Your task to perform on an android device: turn on javascript in the chrome app Image 0: 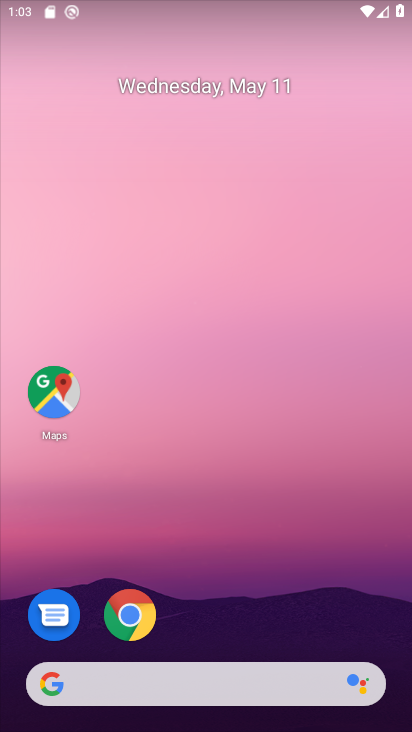
Step 0: drag from (359, 606) to (323, 215)
Your task to perform on an android device: turn on javascript in the chrome app Image 1: 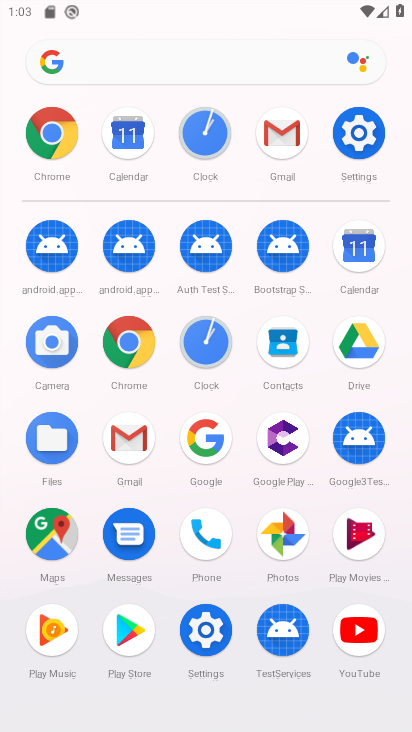
Step 1: click (129, 350)
Your task to perform on an android device: turn on javascript in the chrome app Image 2: 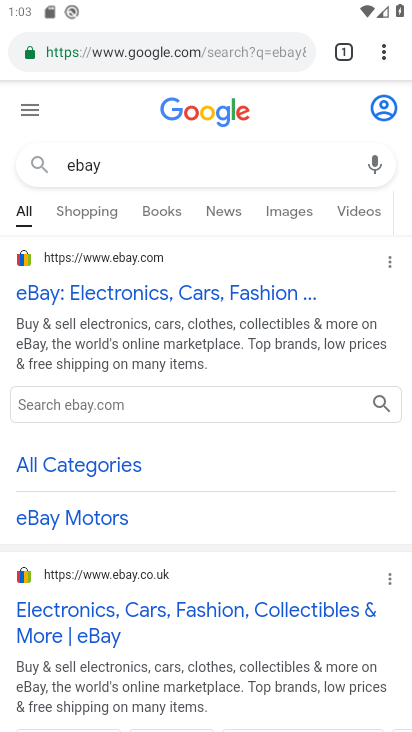
Step 2: drag from (384, 60) to (230, 597)
Your task to perform on an android device: turn on javascript in the chrome app Image 3: 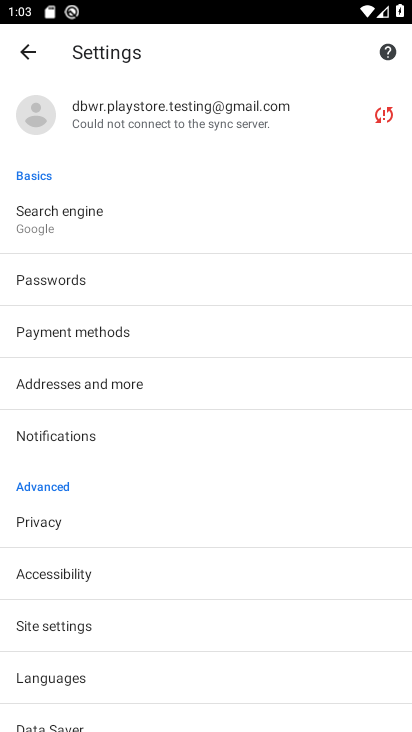
Step 3: drag from (230, 650) to (266, 297)
Your task to perform on an android device: turn on javascript in the chrome app Image 4: 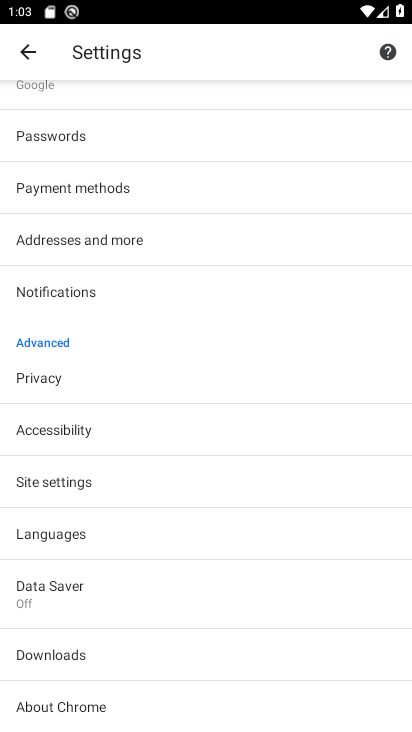
Step 4: click (140, 498)
Your task to perform on an android device: turn on javascript in the chrome app Image 5: 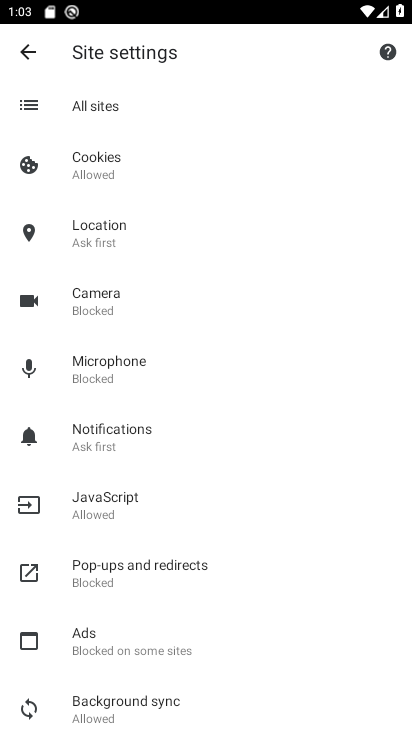
Step 5: click (141, 497)
Your task to perform on an android device: turn on javascript in the chrome app Image 6: 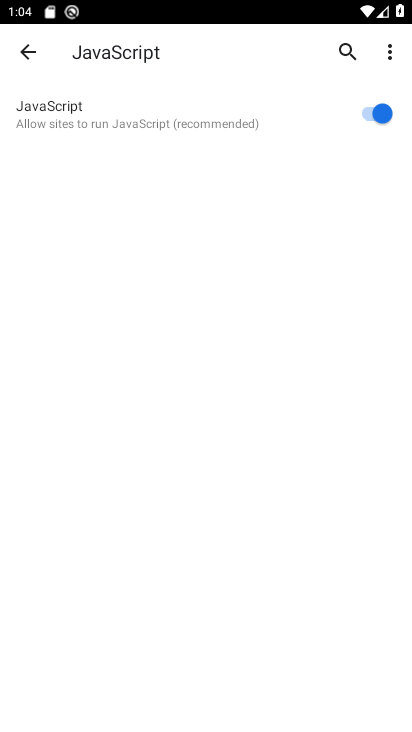
Step 6: click (194, 175)
Your task to perform on an android device: turn on javascript in the chrome app Image 7: 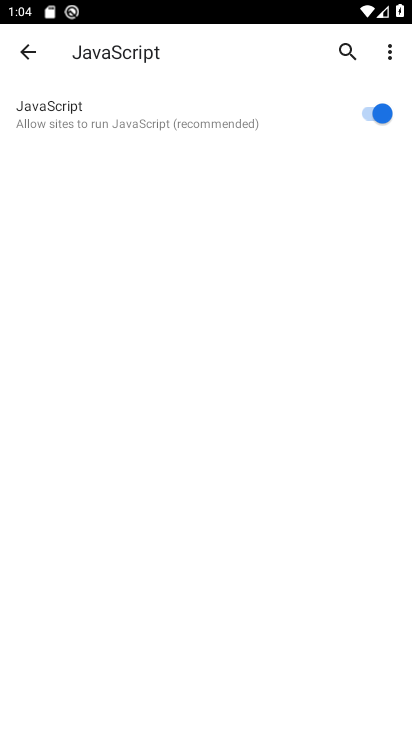
Step 7: task complete